Your task to perform on an android device: Open Youtube and go to the subscriptions tab Image 0: 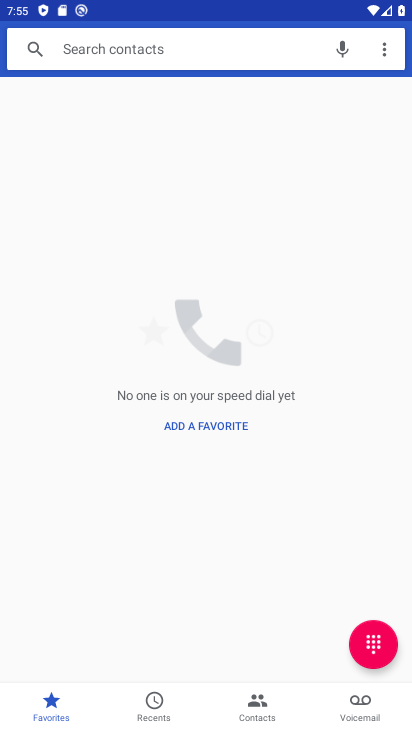
Step 0: press home button
Your task to perform on an android device: Open Youtube and go to the subscriptions tab Image 1: 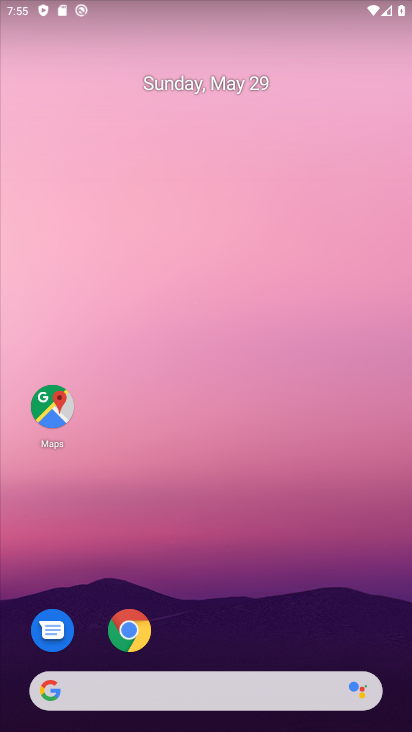
Step 1: drag from (210, 653) to (193, 9)
Your task to perform on an android device: Open Youtube and go to the subscriptions tab Image 2: 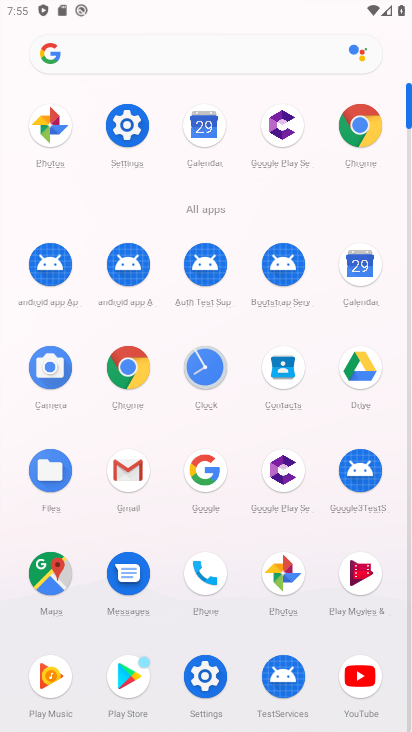
Step 2: click (355, 678)
Your task to perform on an android device: Open Youtube and go to the subscriptions tab Image 3: 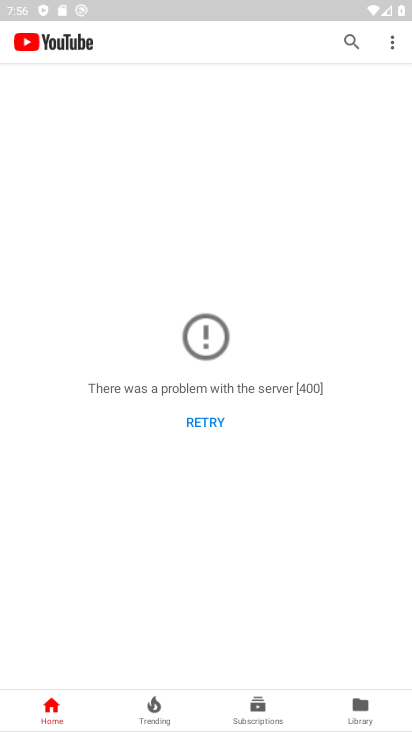
Step 3: click (260, 710)
Your task to perform on an android device: Open Youtube and go to the subscriptions tab Image 4: 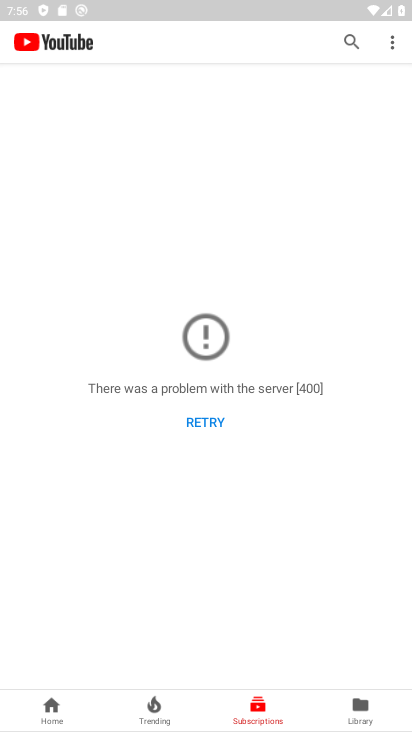
Step 4: task complete